Your task to perform on an android device: Open Yahoo.com Image 0: 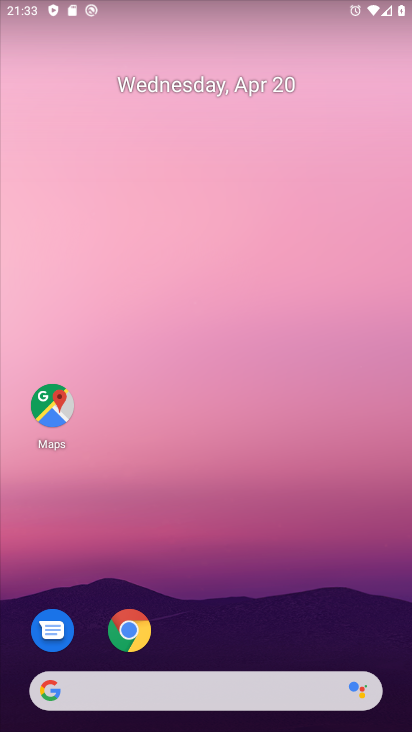
Step 0: click (126, 625)
Your task to perform on an android device: Open Yahoo.com Image 1: 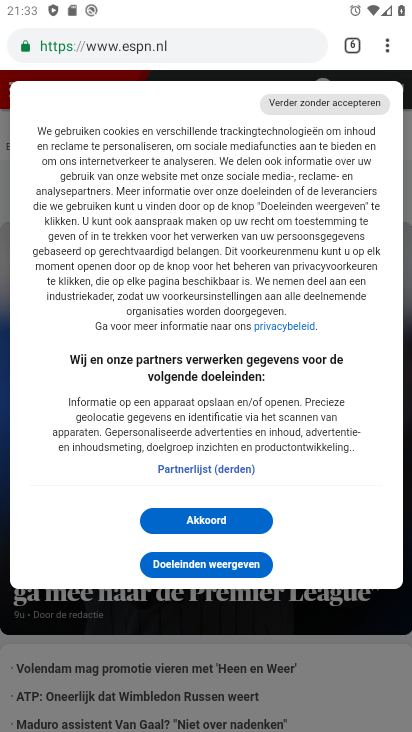
Step 1: click (351, 41)
Your task to perform on an android device: Open Yahoo.com Image 2: 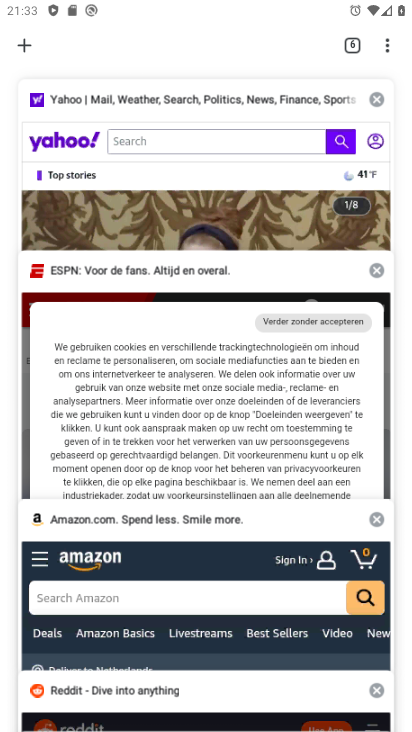
Step 2: click (73, 113)
Your task to perform on an android device: Open Yahoo.com Image 3: 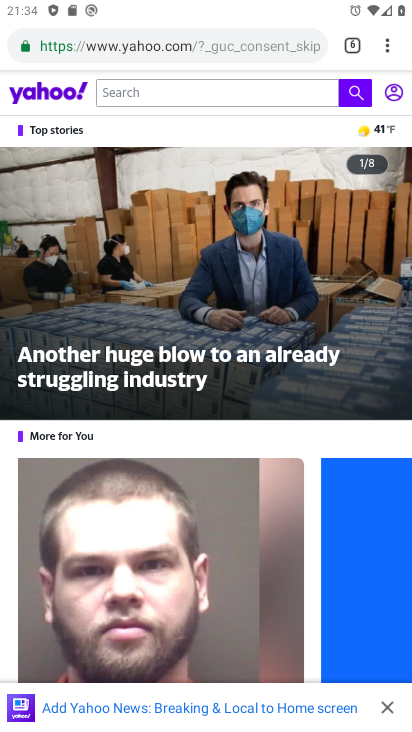
Step 3: task complete